Your task to perform on an android device: create a new album in the google photos Image 0: 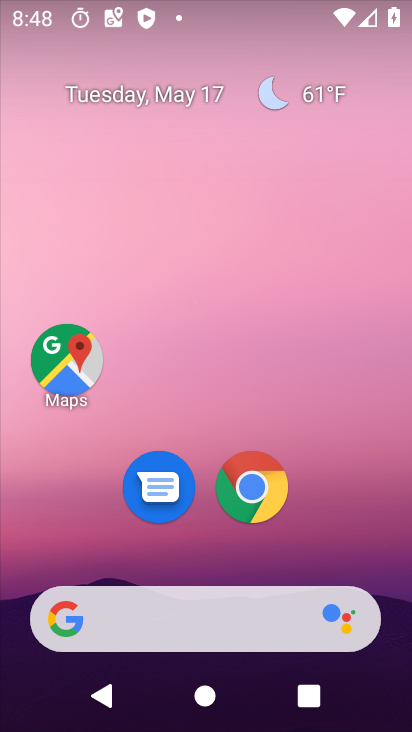
Step 0: press home button
Your task to perform on an android device: create a new album in the google photos Image 1: 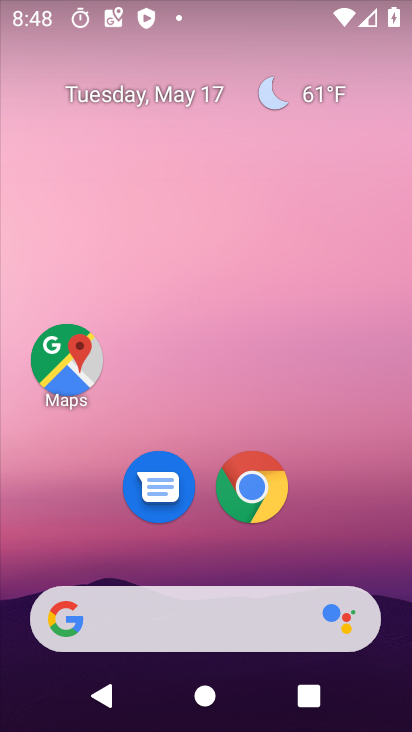
Step 1: drag from (153, 628) to (295, 194)
Your task to perform on an android device: create a new album in the google photos Image 2: 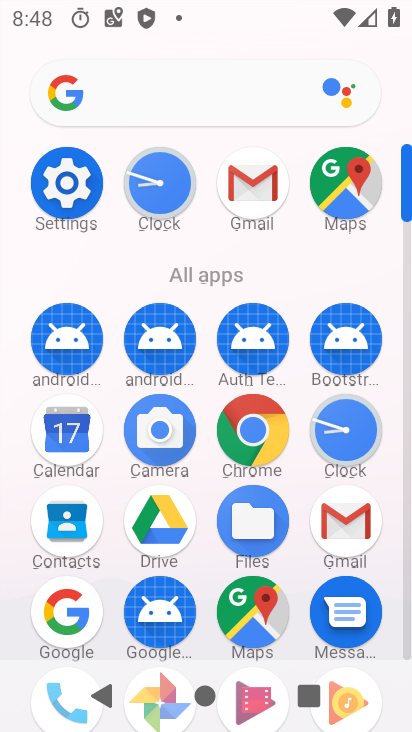
Step 2: drag from (210, 545) to (270, 196)
Your task to perform on an android device: create a new album in the google photos Image 3: 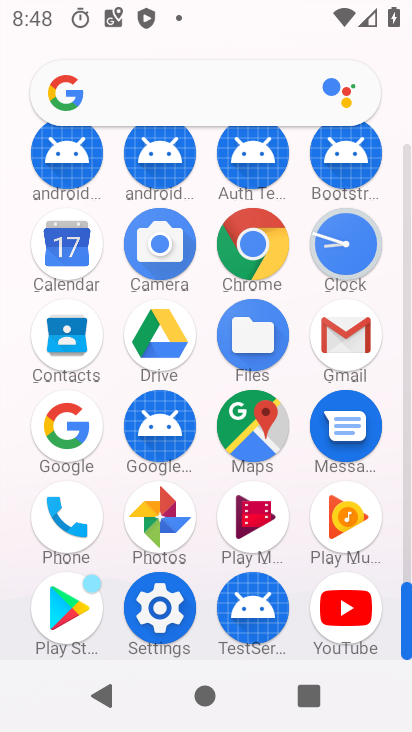
Step 3: click (164, 517)
Your task to perform on an android device: create a new album in the google photos Image 4: 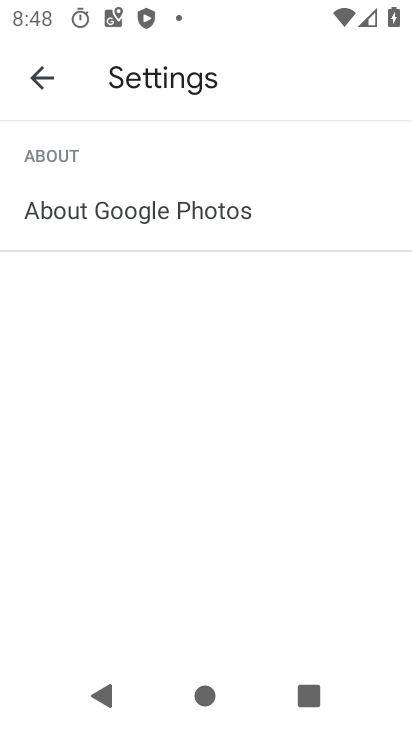
Step 4: click (43, 79)
Your task to perform on an android device: create a new album in the google photos Image 5: 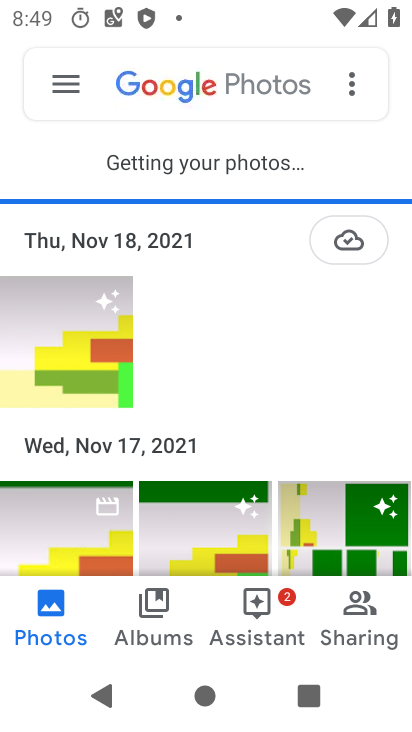
Step 5: click (157, 620)
Your task to perform on an android device: create a new album in the google photos Image 6: 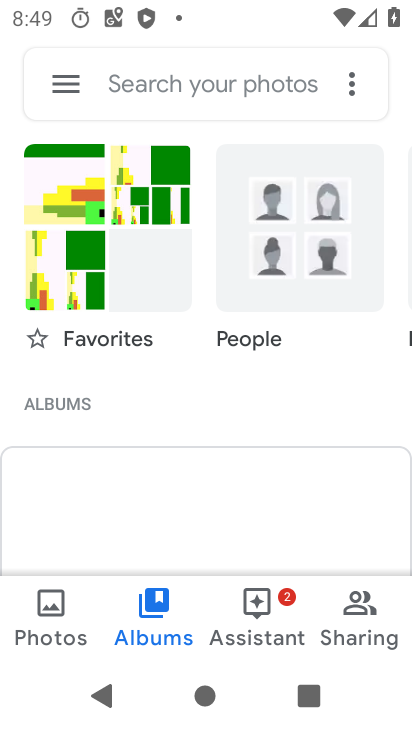
Step 6: drag from (237, 531) to (386, 199)
Your task to perform on an android device: create a new album in the google photos Image 7: 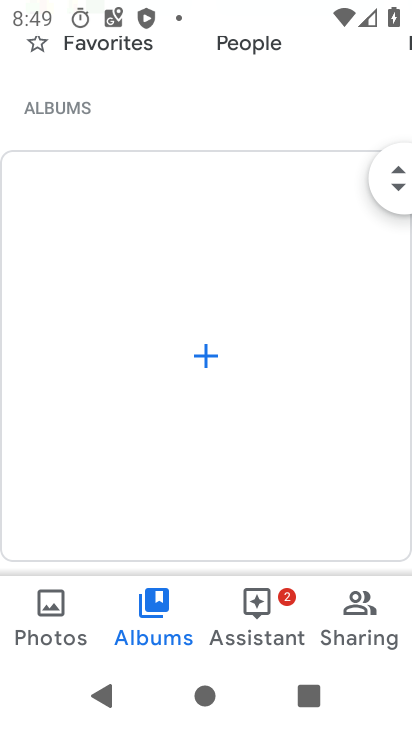
Step 7: drag from (313, 206) to (349, 199)
Your task to perform on an android device: create a new album in the google photos Image 8: 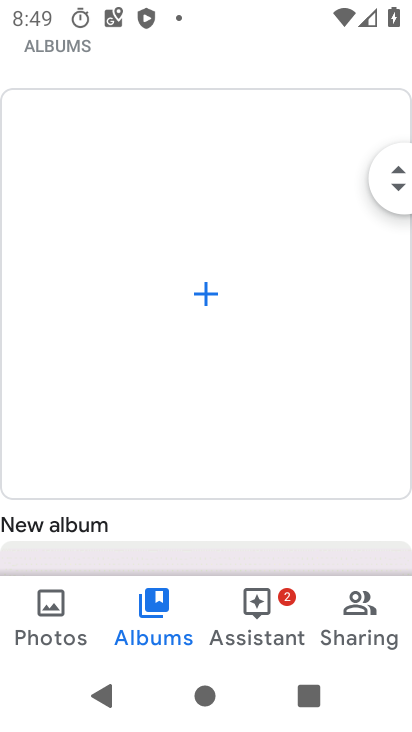
Step 8: click (204, 287)
Your task to perform on an android device: create a new album in the google photos Image 9: 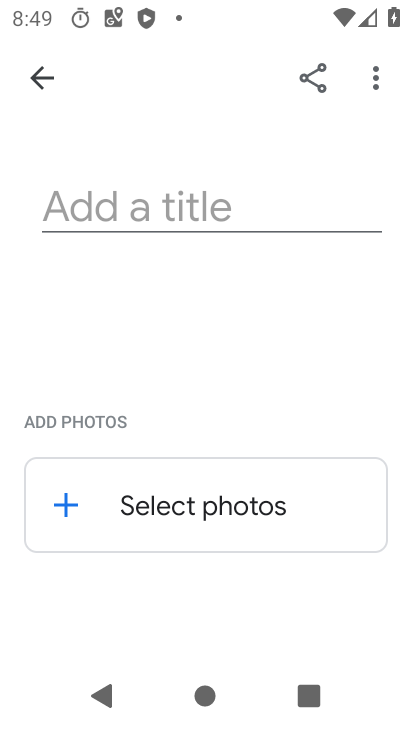
Step 9: click (169, 497)
Your task to perform on an android device: create a new album in the google photos Image 10: 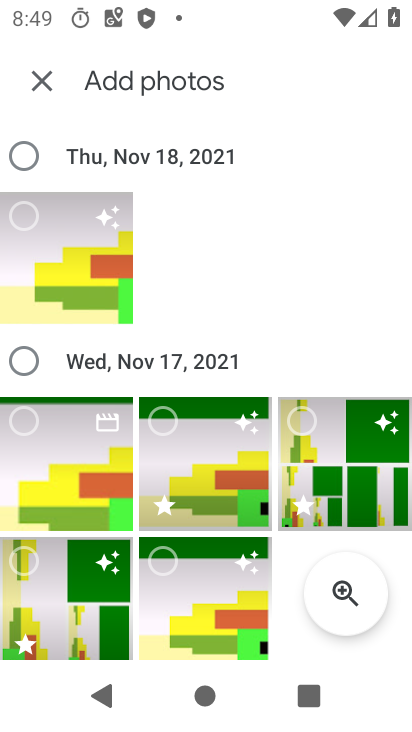
Step 10: click (38, 230)
Your task to perform on an android device: create a new album in the google photos Image 11: 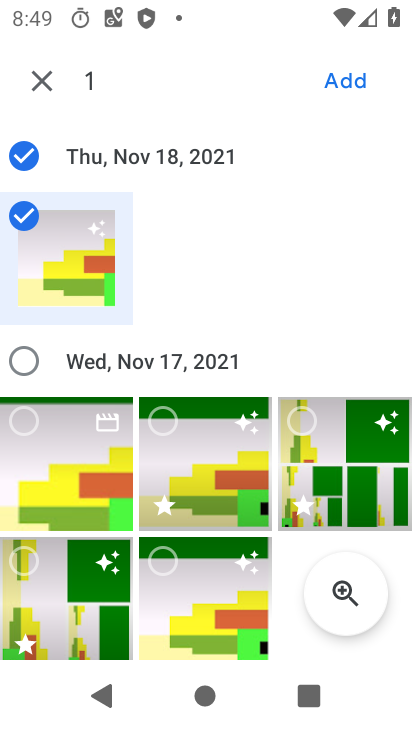
Step 11: click (34, 427)
Your task to perform on an android device: create a new album in the google photos Image 12: 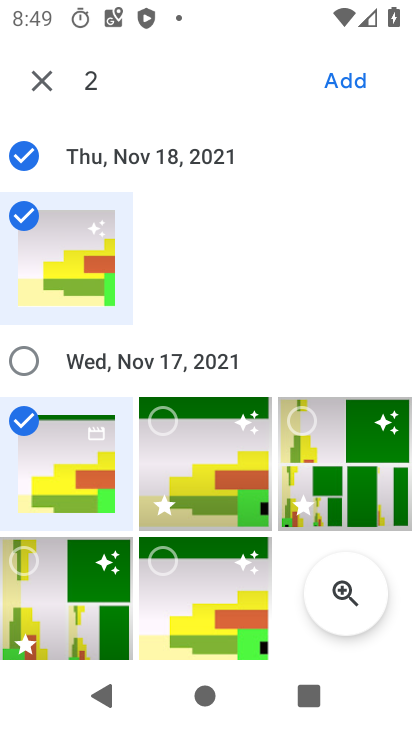
Step 12: click (170, 442)
Your task to perform on an android device: create a new album in the google photos Image 13: 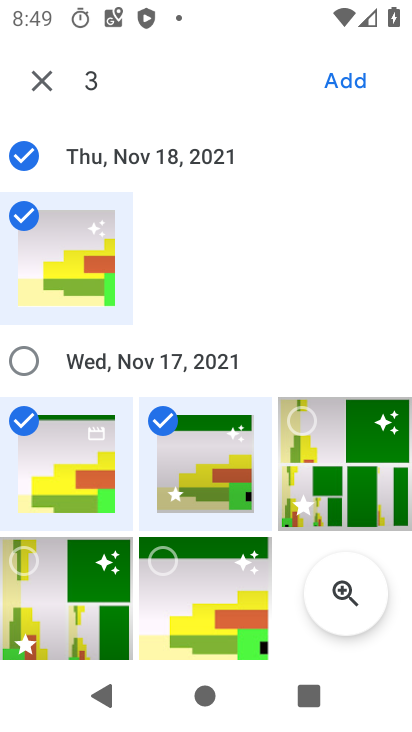
Step 13: click (357, 83)
Your task to perform on an android device: create a new album in the google photos Image 14: 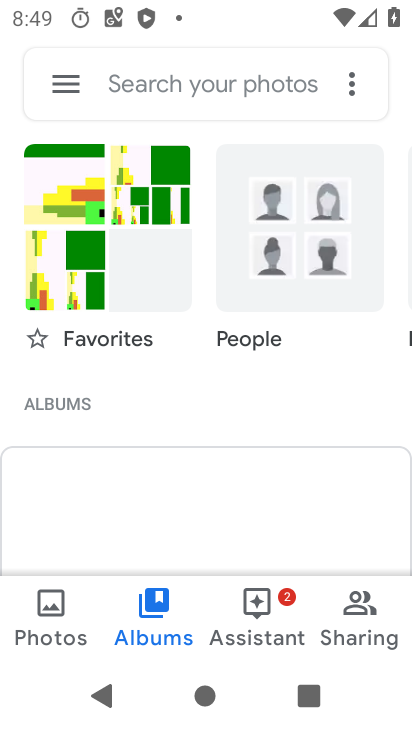
Step 14: task complete